Your task to perform on an android device: change the upload size in google photos Image 0: 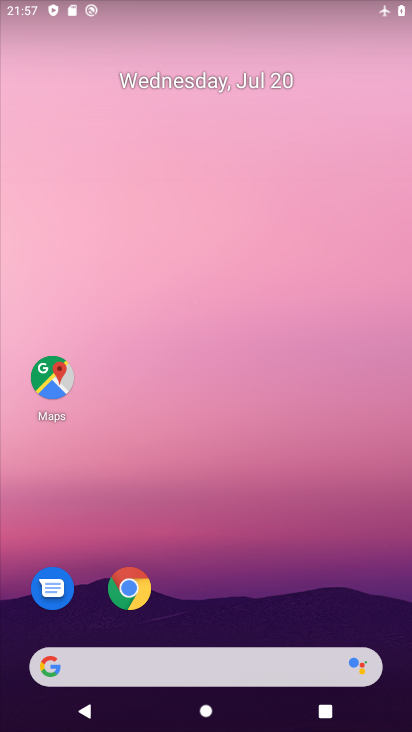
Step 0: drag from (382, 619) to (318, 46)
Your task to perform on an android device: change the upload size in google photos Image 1: 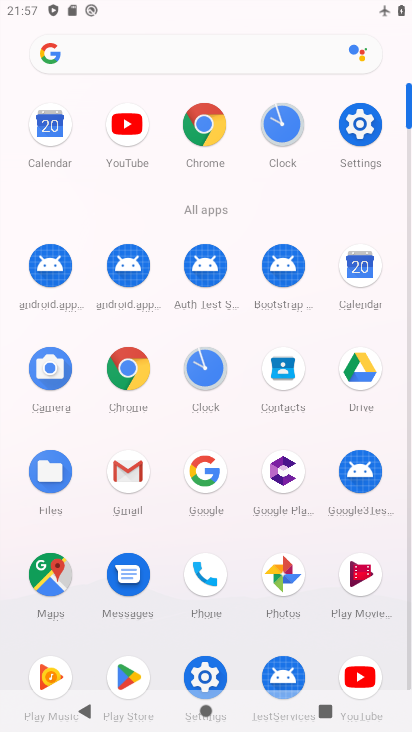
Step 1: click (284, 573)
Your task to perform on an android device: change the upload size in google photos Image 2: 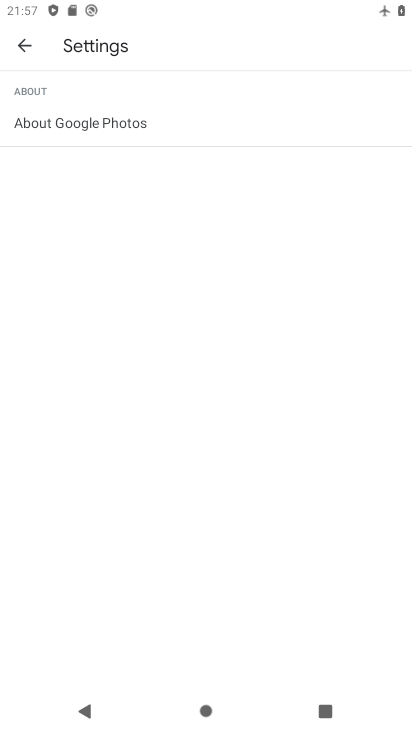
Step 2: press back button
Your task to perform on an android device: change the upload size in google photos Image 3: 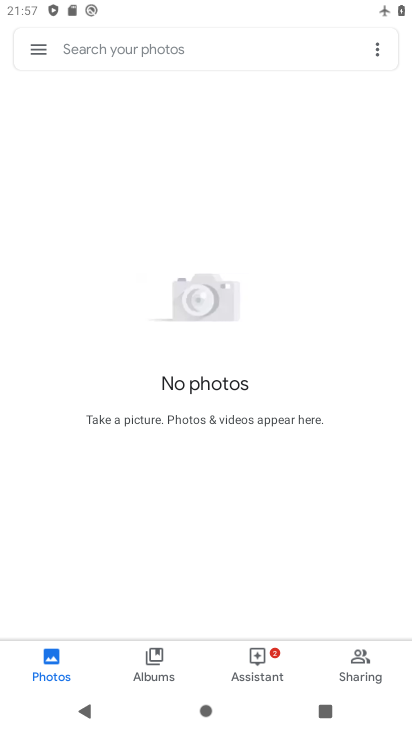
Step 3: click (37, 51)
Your task to perform on an android device: change the upload size in google photos Image 4: 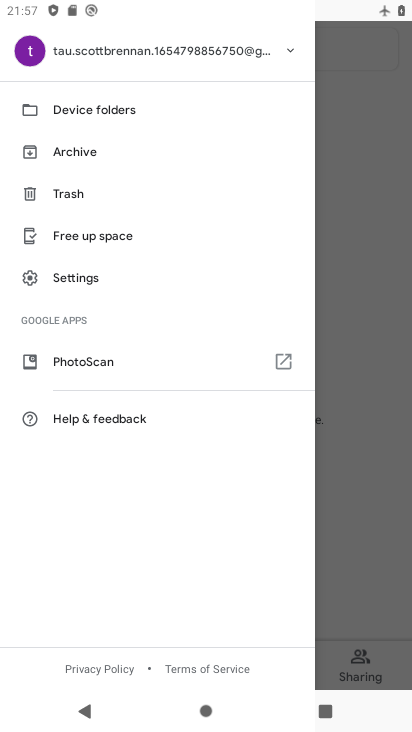
Step 4: click (67, 277)
Your task to perform on an android device: change the upload size in google photos Image 5: 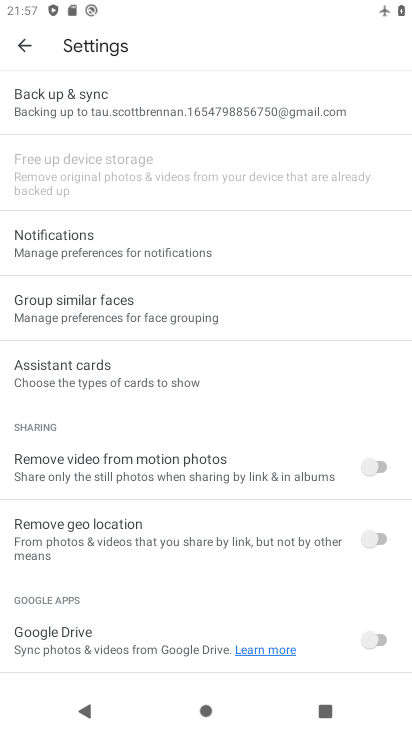
Step 5: click (102, 98)
Your task to perform on an android device: change the upload size in google photos Image 6: 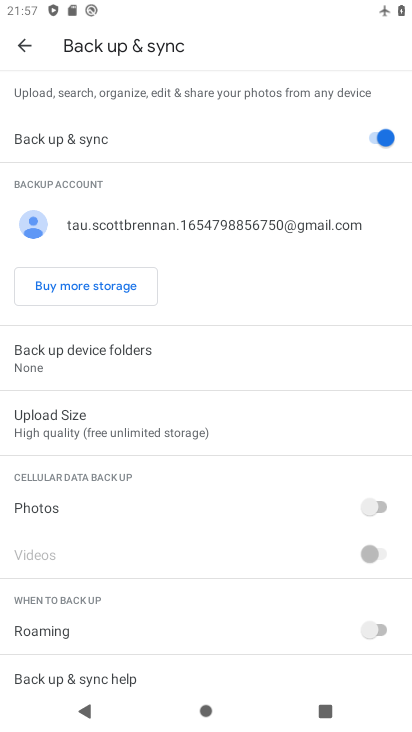
Step 6: click (61, 410)
Your task to perform on an android device: change the upload size in google photos Image 7: 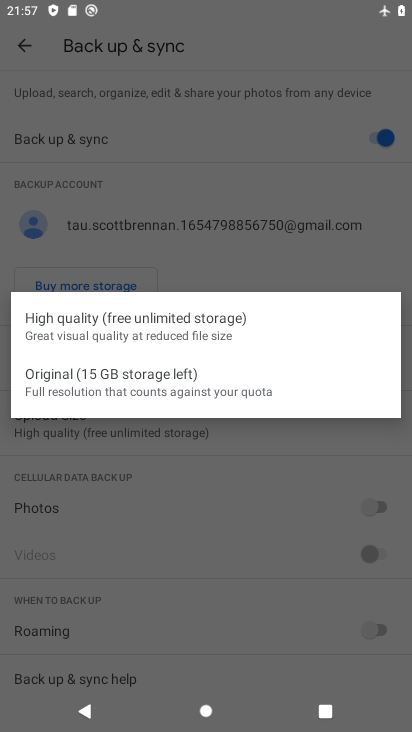
Step 7: click (97, 375)
Your task to perform on an android device: change the upload size in google photos Image 8: 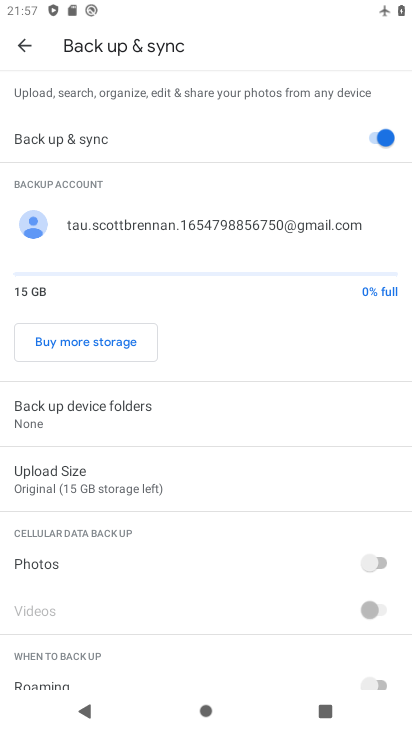
Step 8: task complete